Your task to perform on an android device: Check the news Image 0: 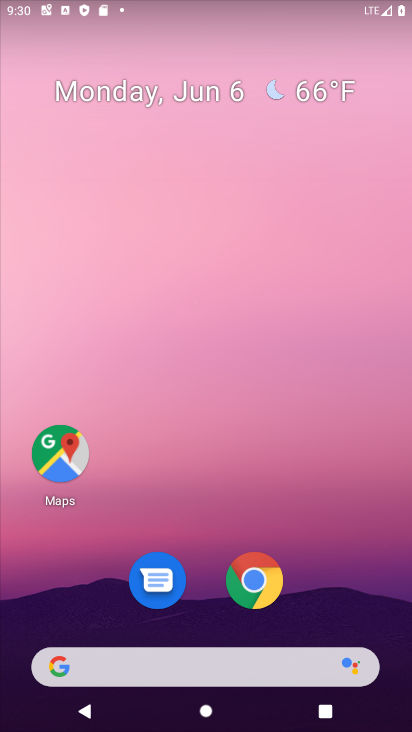
Step 0: drag from (352, 573) to (278, 13)
Your task to perform on an android device: Check the news Image 1: 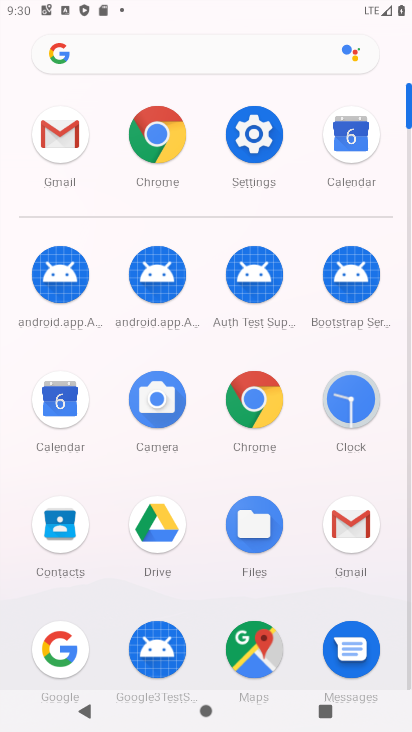
Step 1: click (156, 127)
Your task to perform on an android device: Check the news Image 2: 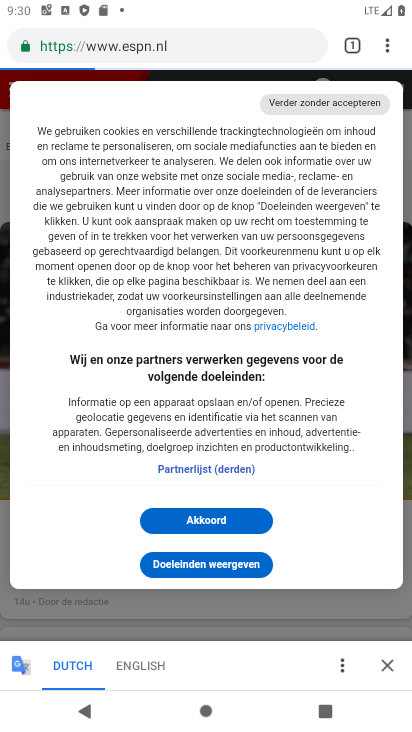
Step 2: task complete